Your task to perform on an android device: Open calendar and show me the fourth week of next month Image 0: 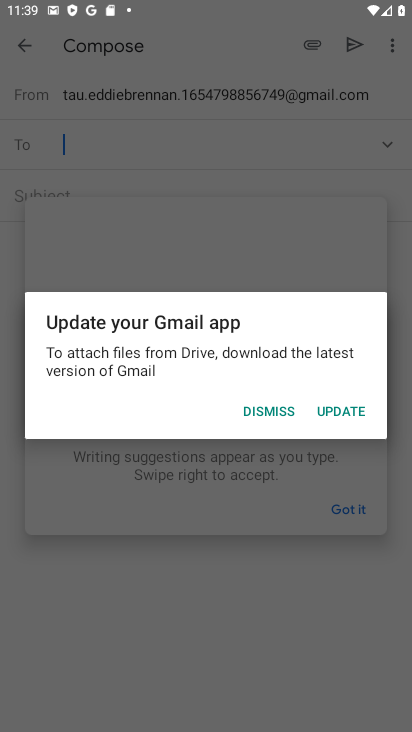
Step 0: press home button
Your task to perform on an android device: Open calendar and show me the fourth week of next month Image 1: 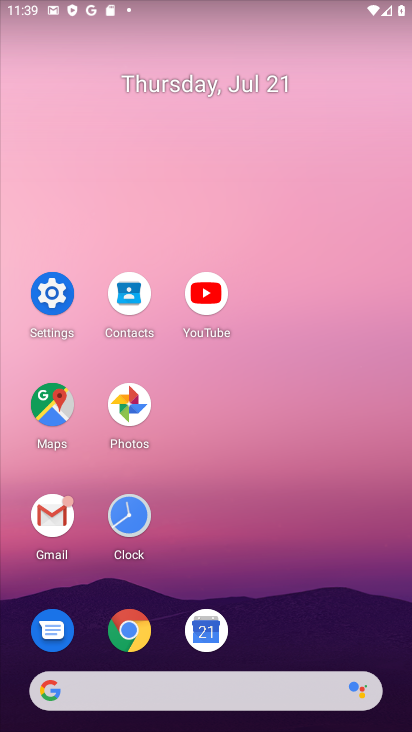
Step 1: click (202, 631)
Your task to perform on an android device: Open calendar and show me the fourth week of next month Image 2: 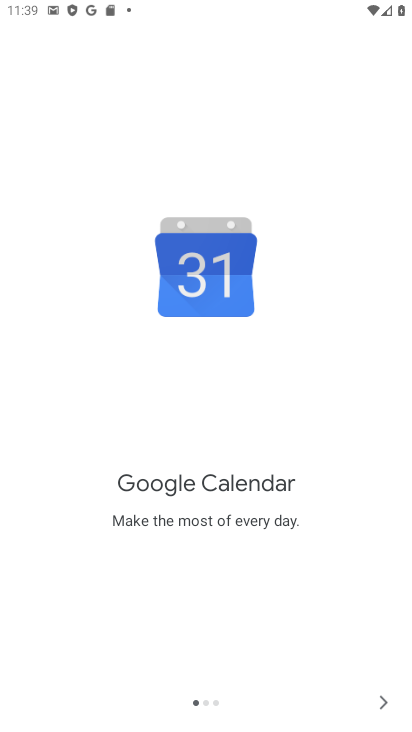
Step 2: click (382, 703)
Your task to perform on an android device: Open calendar and show me the fourth week of next month Image 3: 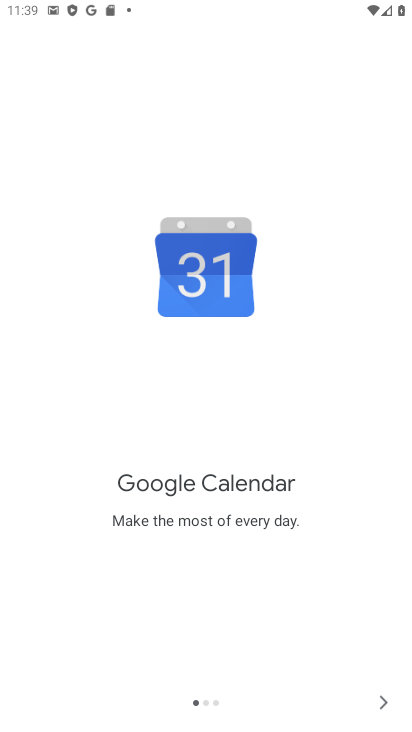
Step 3: click (382, 703)
Your task to perform on an android device: Open calendar and show me the fourth week of next month Image 4: 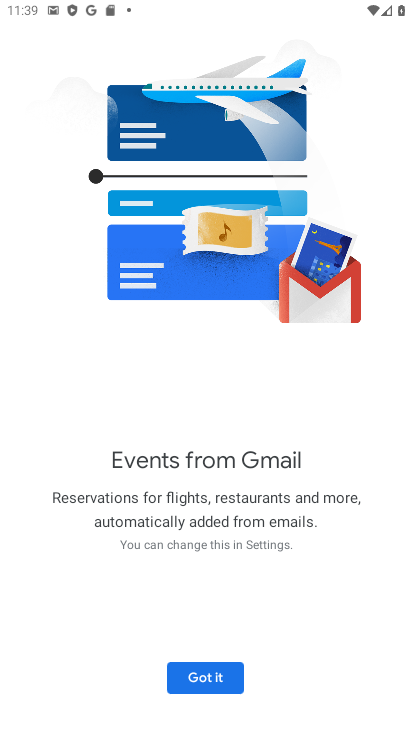
Step 4: click (210, 681)
Your task to perform on an android device: Open calendar and show me the fourth week of next month Image 5: 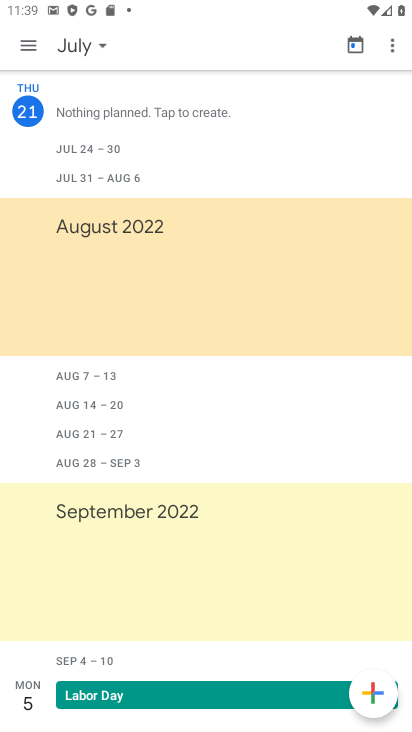
Step 5: click (29, 44)
Your task to perform on an android device: Open calendar and show me the fourth week of next month Image 6: 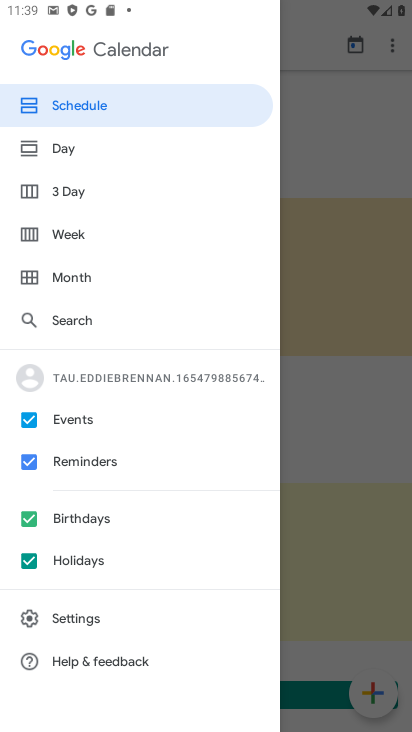
Step 6: click (70, 229)
Your task to perform on an android device: Open calendar and show me the fourth week of next month Image 7: 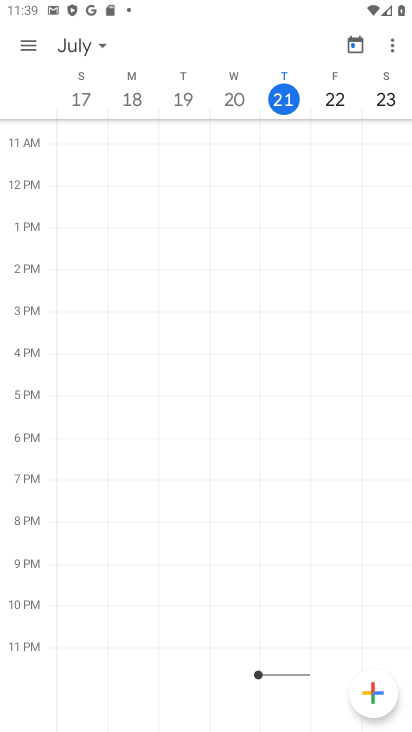
Step 7: click (101, 42)
Your task to perform on an android device: Open calendar and show me the fourth week of next month Image 8: 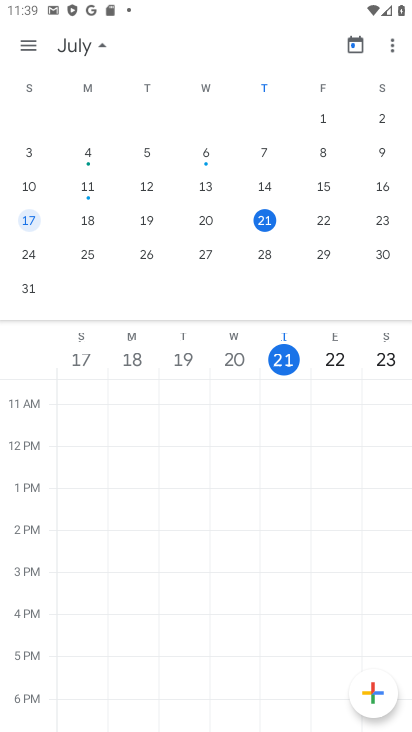
Step 8: drag from (384, 186) to (11, 106)
Your task to perform on an android device: Open calendar and show me the fourth week of next month Image 9: 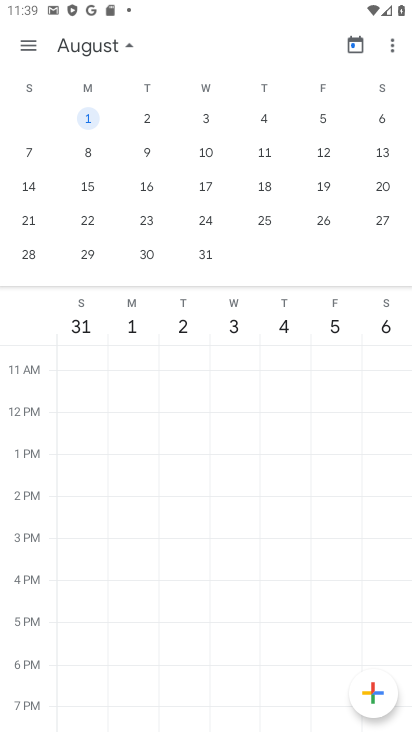
Step 9: click (86, 218)
Your task to perform on an android device: Open calendar and show me the fourth week of next month Image 10: 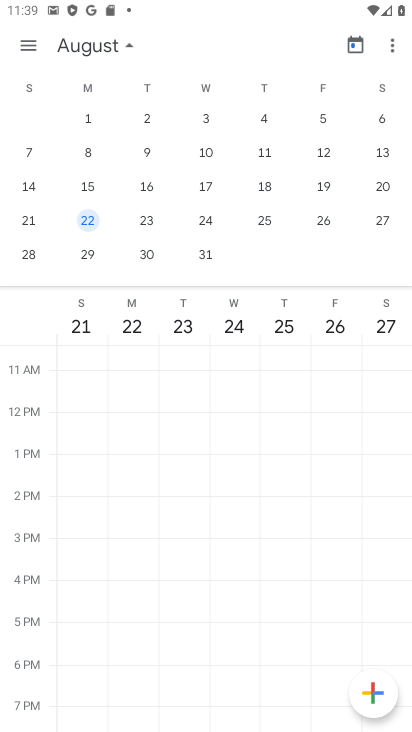
Step 10: task complete